Your task to perform on an android device: Is it going to rain tomorrow? Image 0: 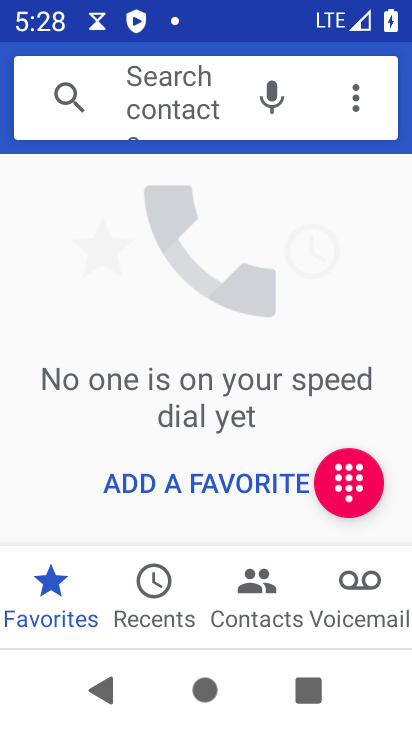
Step 0: press back button
Your task to perform on an android device: Is it going to rain tomorrow? Image 1: 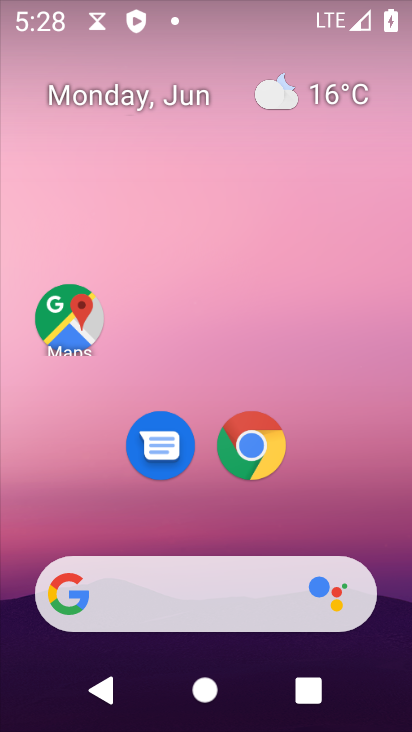
Step 1: drag from (299, 504) to (300, 62)
Your task to perform on an android device: Is it going to rain tomorrow? Image 2: 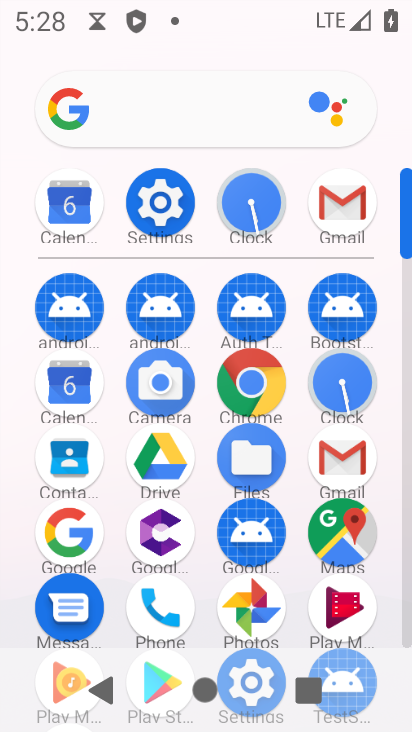
Step 2: click (64, 525)
Your task to perform on an android device: Is it going to rain tomorrow? Image 3: 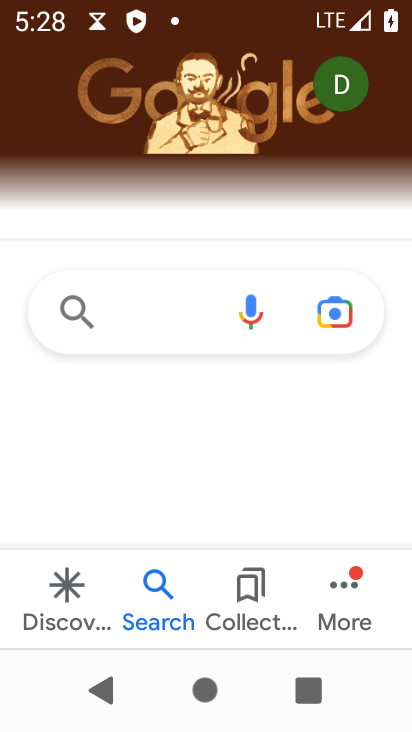
Step 3: click (151, 307)
Your task to perform on an android device: Is it going to rain tomorrow? Image 4: 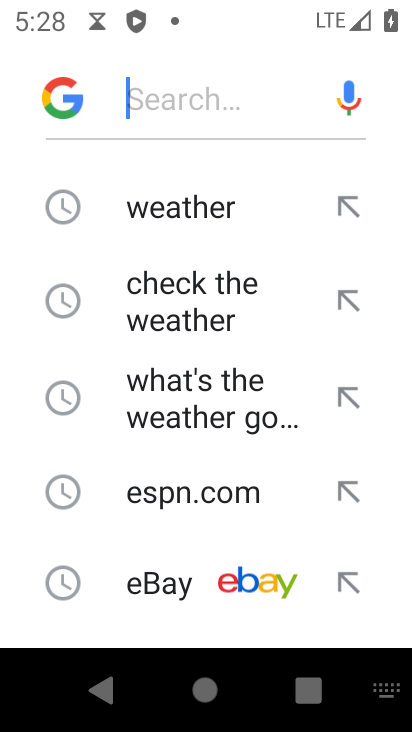
Step 4: type "Is it going to rain tomorrow?"
Your task to perform on an android device: Is it going to rain tomorrow? Image 5: 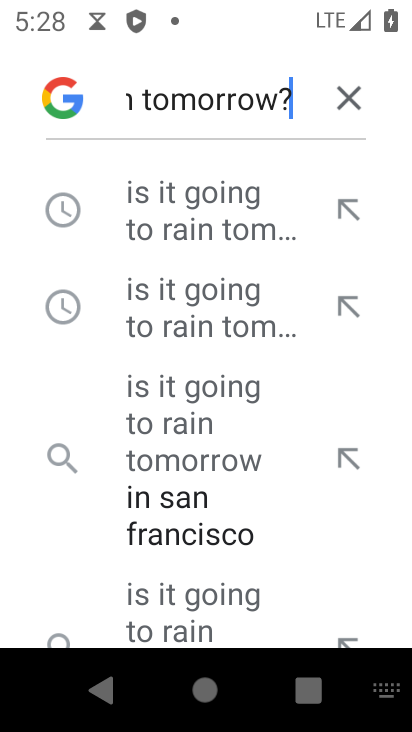
Step 5: click (199, 198)
Your task to perform on an android device: Is it going to rain tomorrow? Image 6: 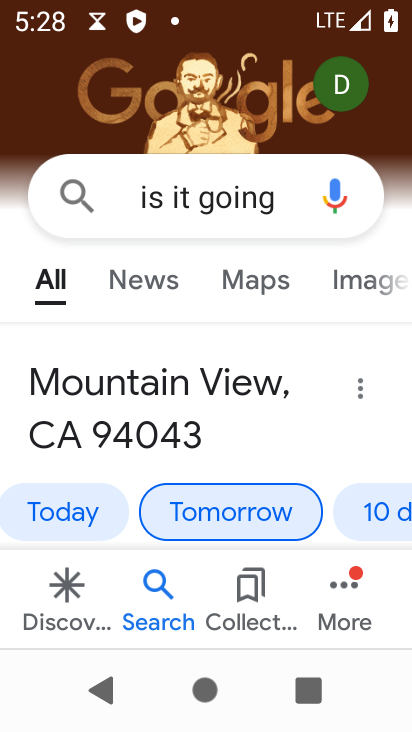
Step 6: task complete